Your task to perform on an android device: Go to Amazon Image 0: 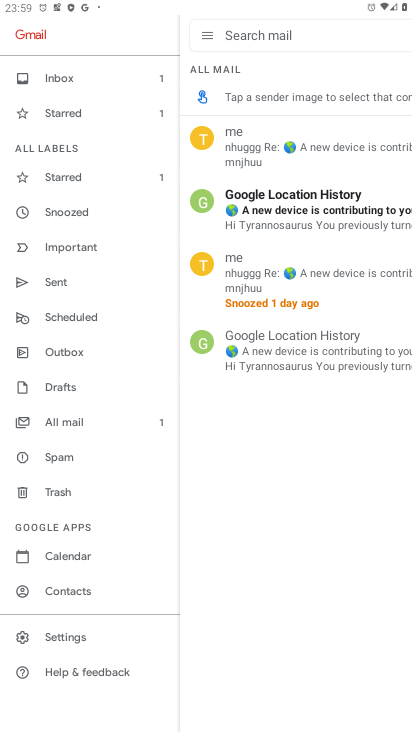
Step 0: press home button
Your task to perform on an android device: Go to Amazon Image 1: 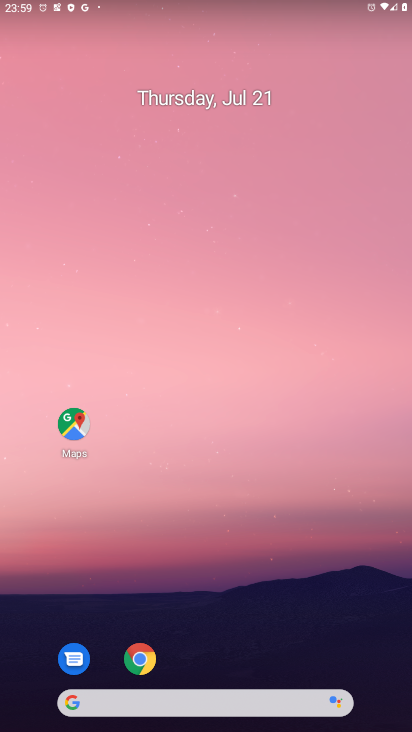
Step 1: click (138, 661)
Your task to perform on an android device: Go to Amazon Image 2: 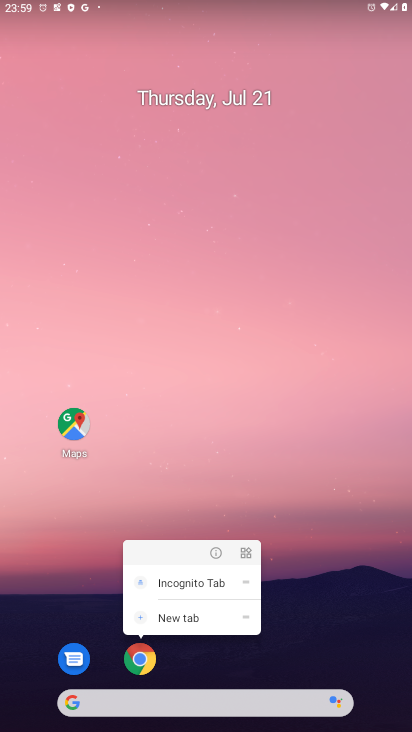
Step 2: click (138, 661)
Your task to perform on an android device: Go to Amazon Image 3: 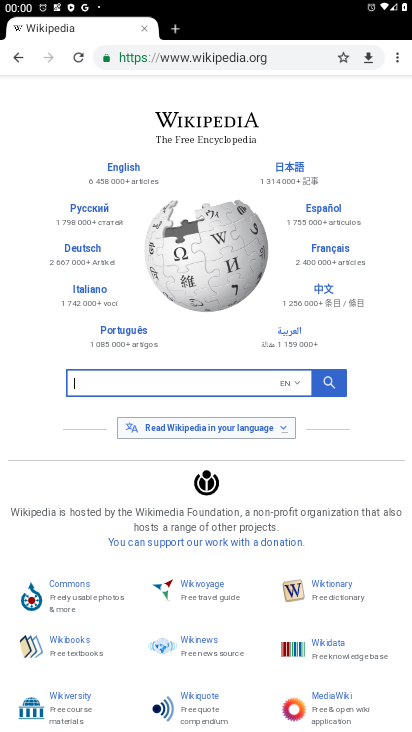
Step 3: click (297, 63)
Your task to perform on an android device: Go to Amazon Image 4: 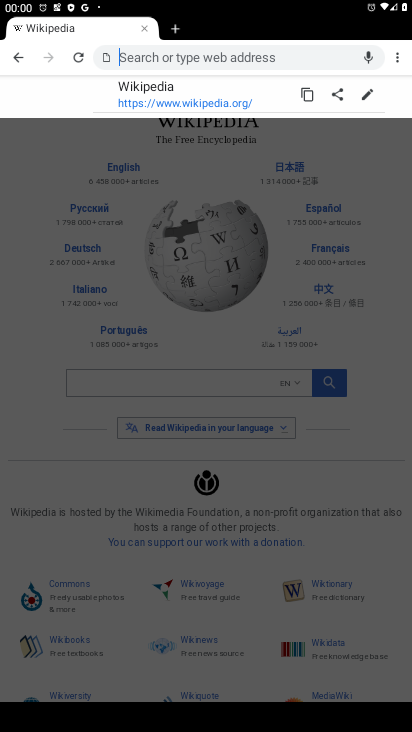
Step 4: type "Amazon"
Your task to perform on an android device: Go to Amazon Image 5: 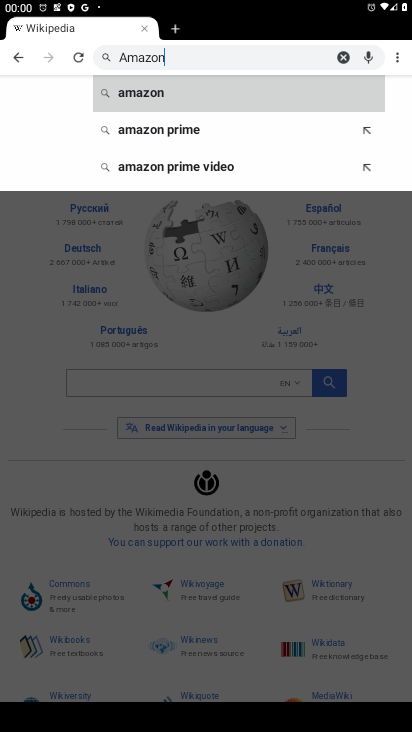
Step 5: click (197, 93)
Your task to perform on an android device: Go to Amazon Image 6: 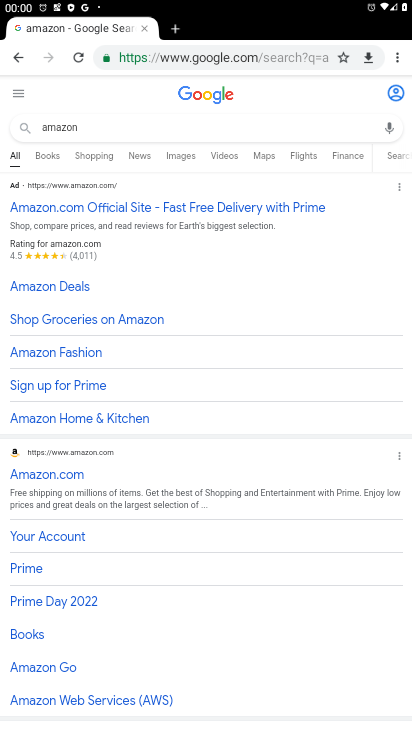
Step 6: click (82, 476)
Your task to perform on an android device: Go to Amazon Image 7: 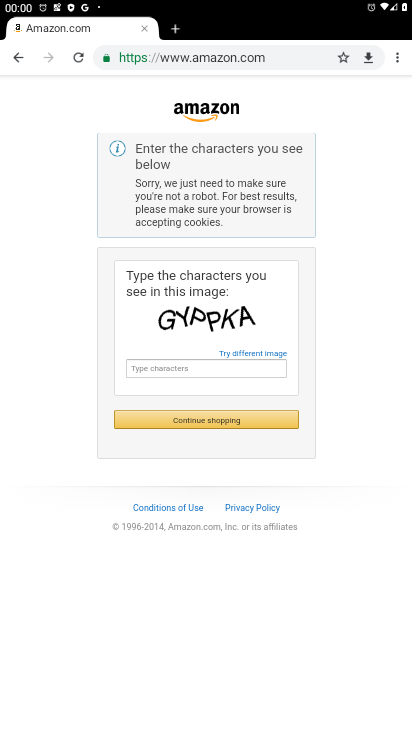
Step 7: task complete